Your task to perform on an android device: add a contact in the contacts app Image 0: 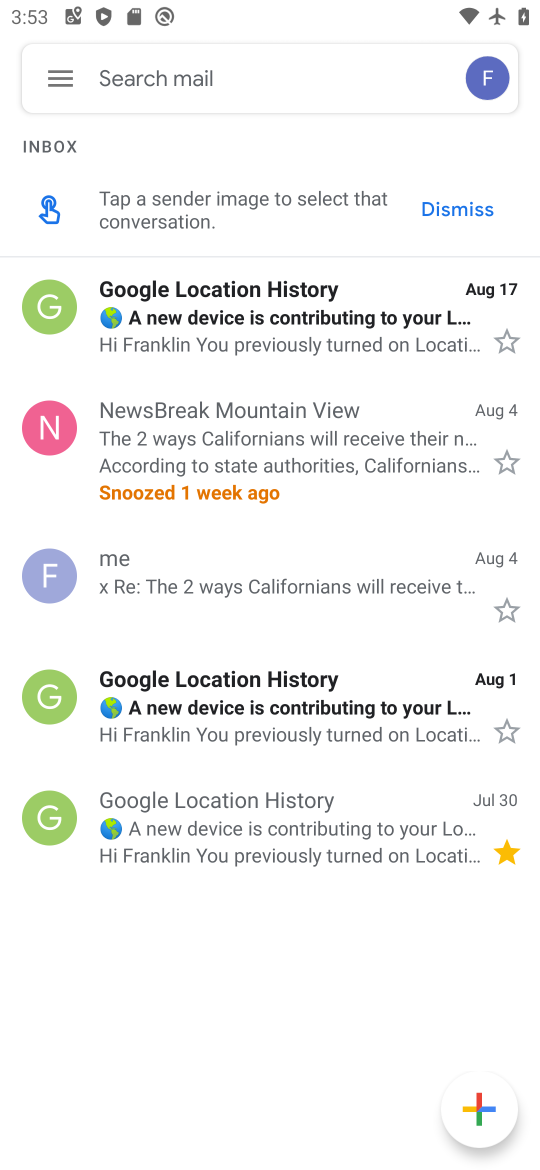
Step 0: press home button
Your task to perform on an android device: add a contact in the contacts app Image 1: 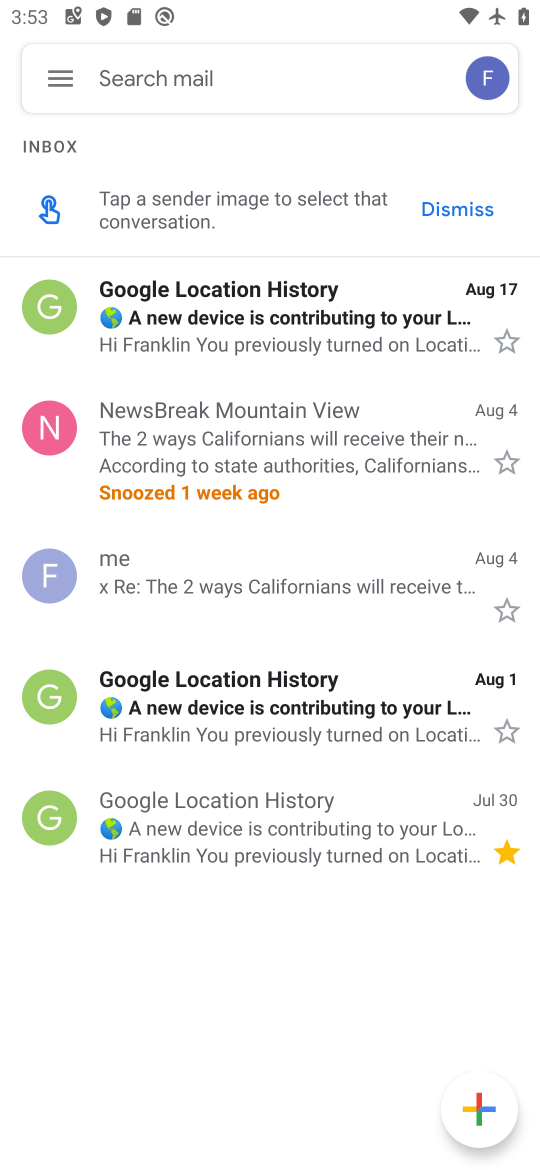
Step 1: press home button
Your task to perform on an android device: add a contact in the contacts app Image 2: 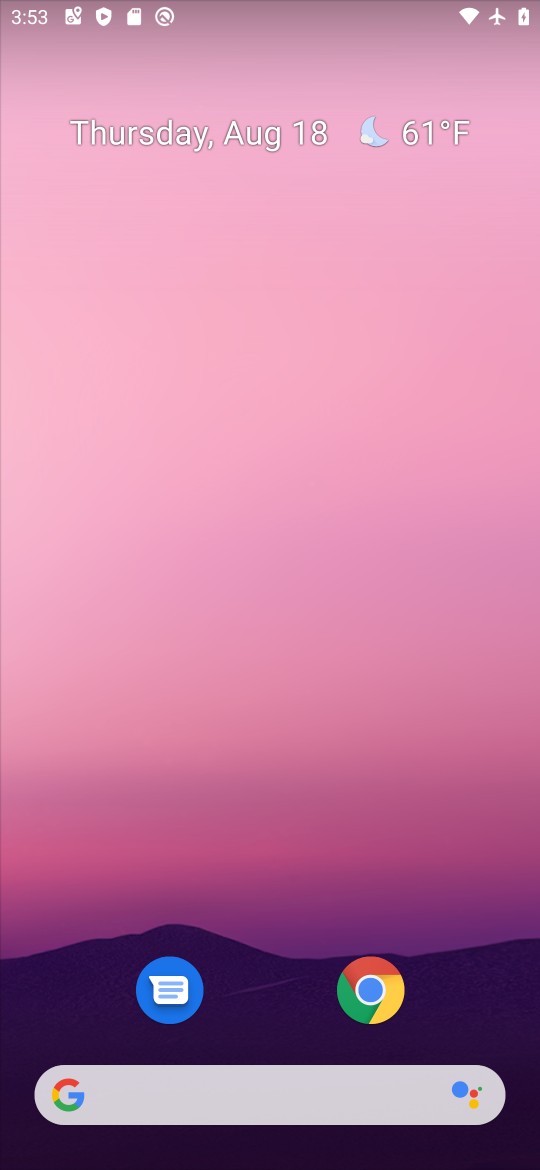
Step 2: drag from (275, 839) to (182, 11)
Your task to perform on an android device: add a contact in the contacts app Image 3: 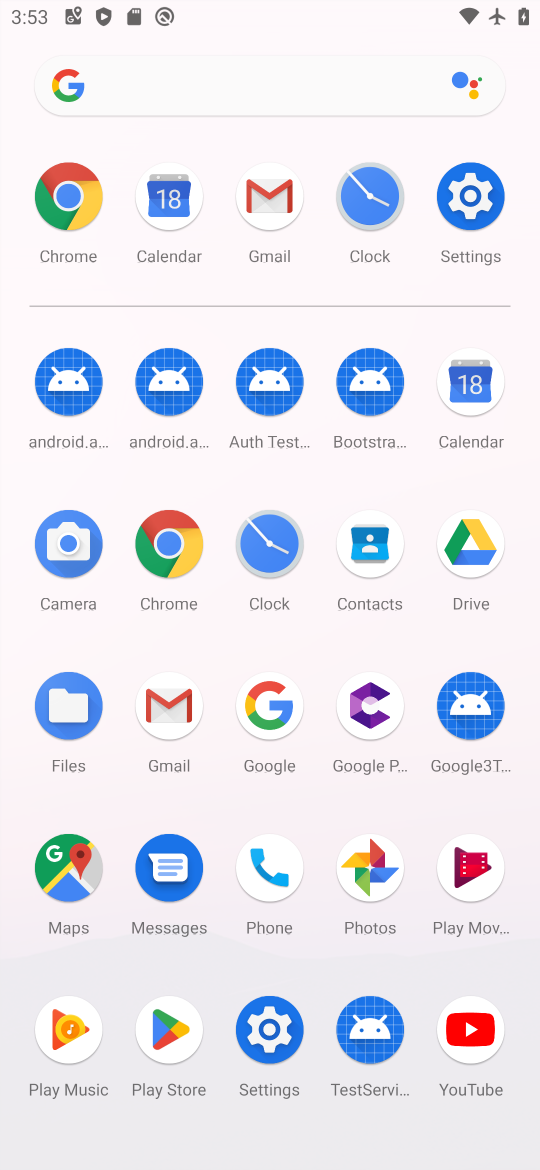
Step 3: click (357, 541)
Your task to perform on an android device: add a contact in the contacts app Image 4: 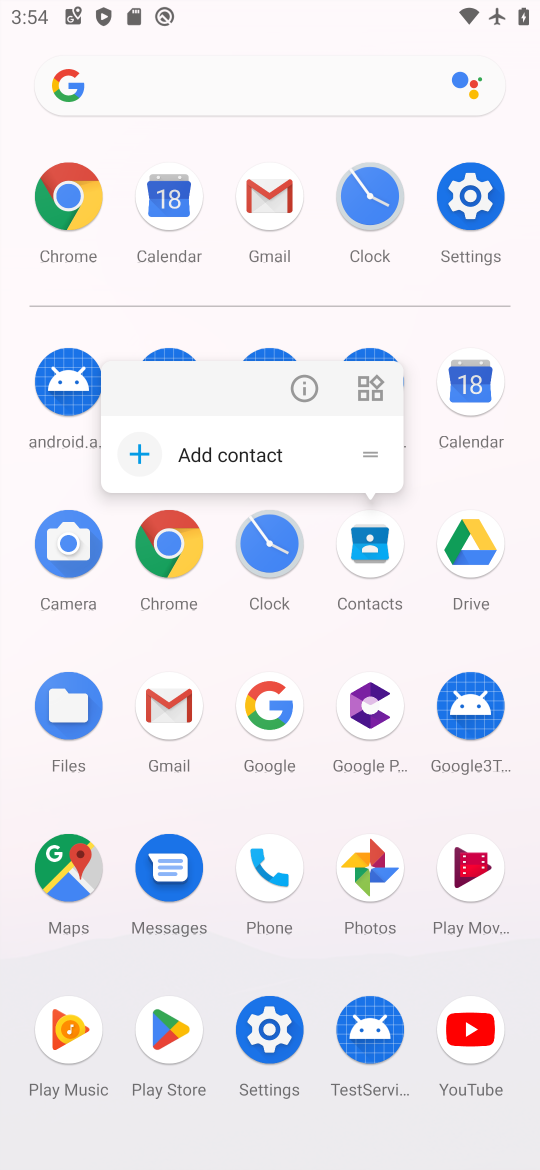
Step 4: click (357, 547)
Your task to perform on an android device: add a contact in the contacts app Image 5: 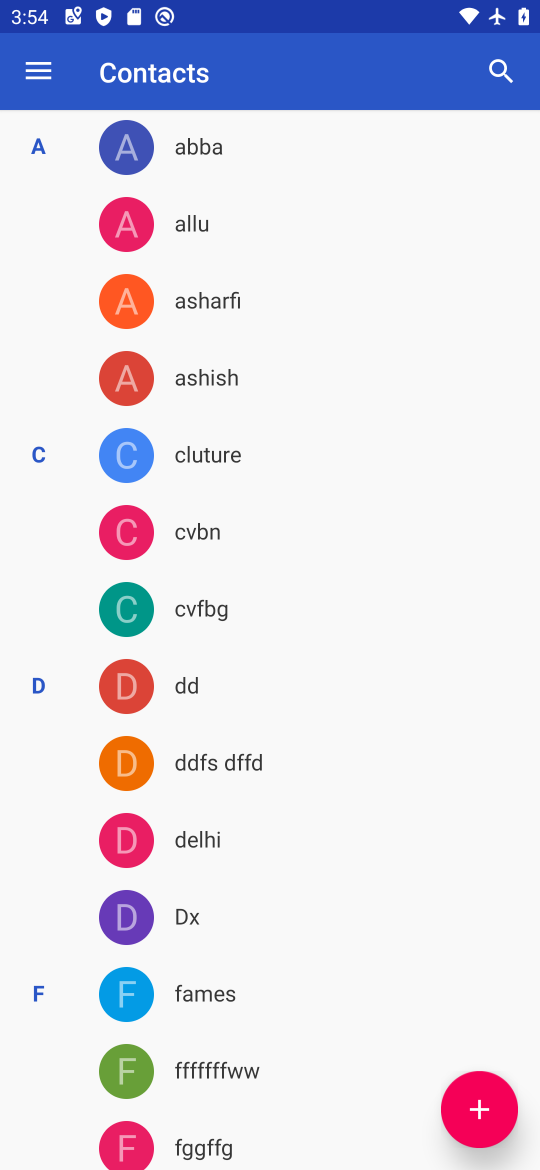
Step 5: click (477, 1119)
Your task to perform on an android device: add a contact in the contacts app Image 6: 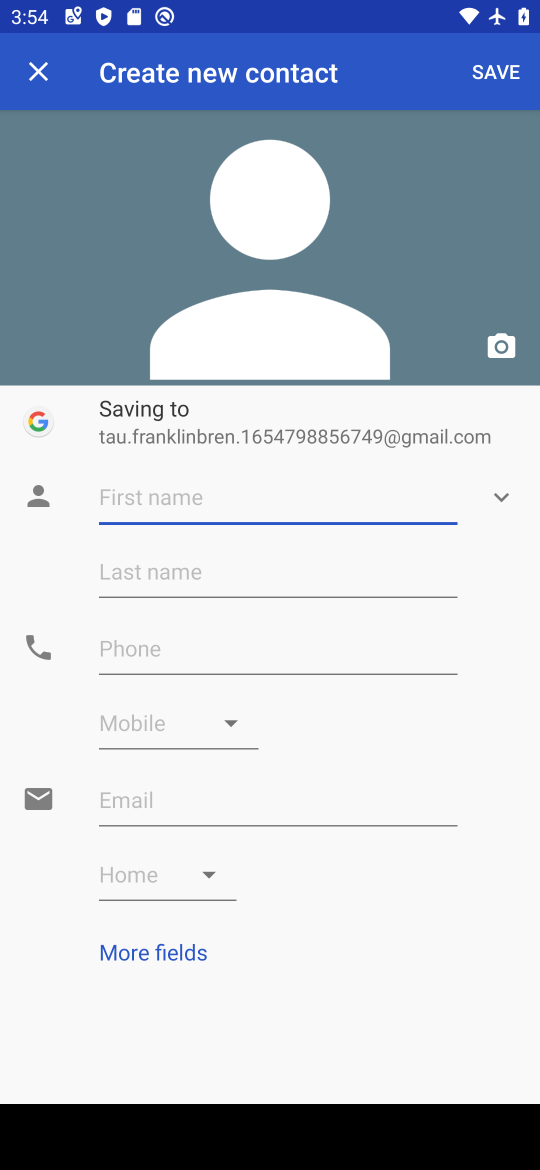
Step 6: type "poplim"
Your task to perform on an android device: add a contact in the contacts app Image 7: 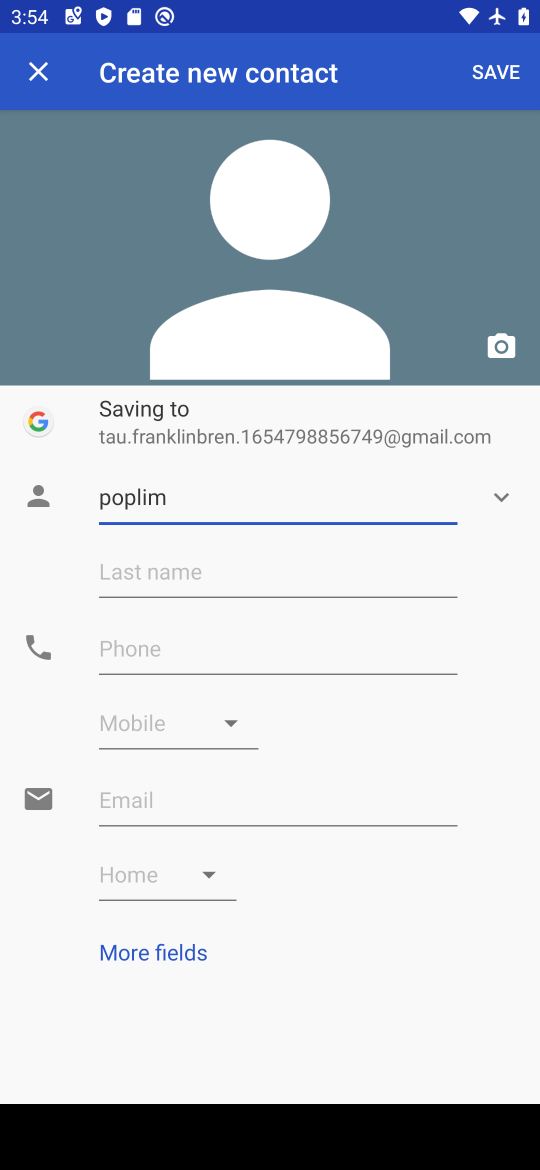
Step 7: click (495, 73)
Your task to perform on an android device: add a contact in the contacts app Image 8: 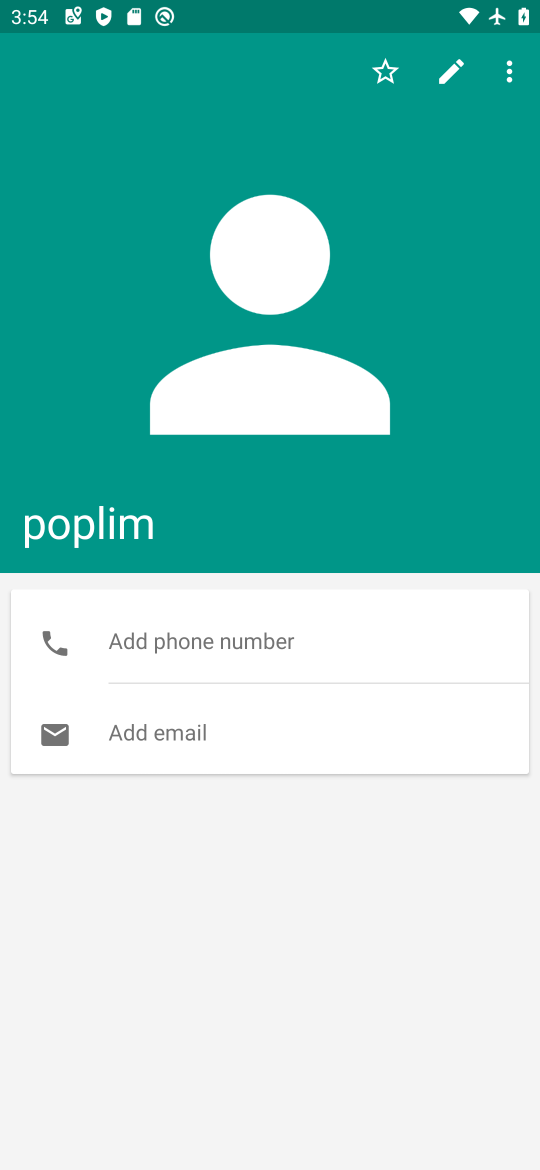
Step 8: task complete